Your task to perform on an android device: turn off data saver in the chrome app Image 0: 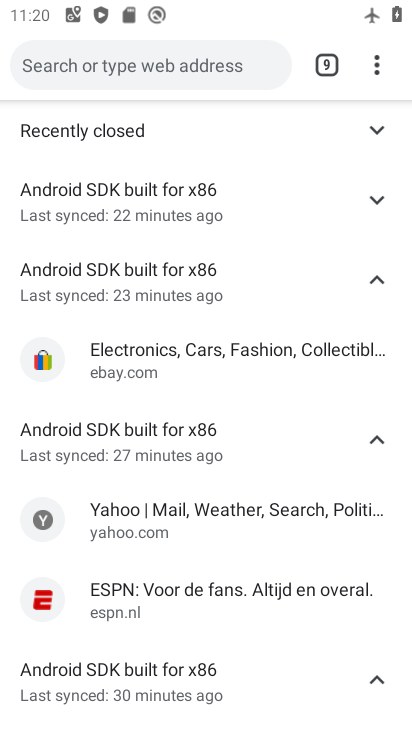
Step 0: click (369, 63)
Your task to perform on an android device: turn off data saver in the chrome app Image 1: 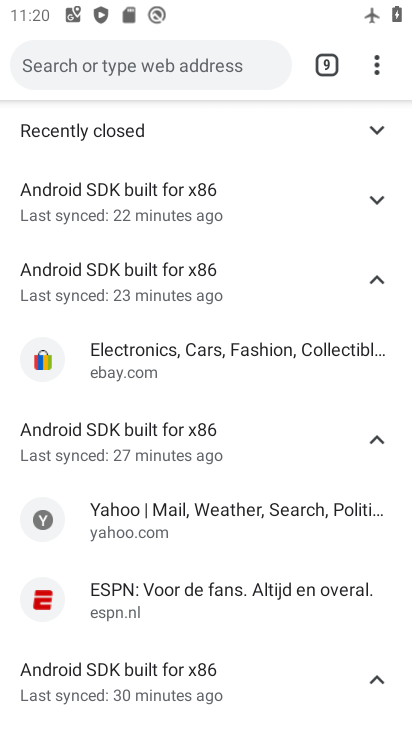
Step 1: press home button
Your task to perform on an android device: turn off data saver in the chrome app Image 2: 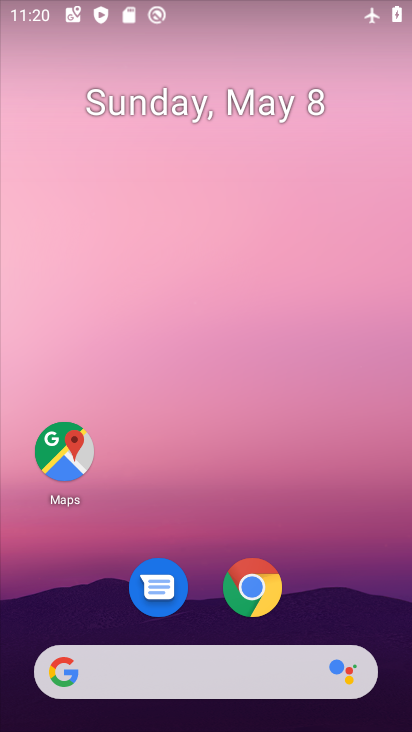
Step 2: click (248, 568)
Your task to perform on an android device: turn off data saver in the chrome app Image 3: 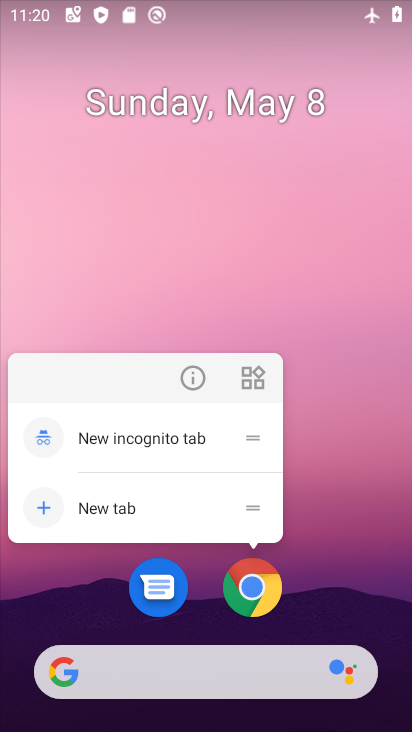
Step 3: click (246, 592)
Your task to perform on an android device: turn off data saver in the chrome app Image 4: 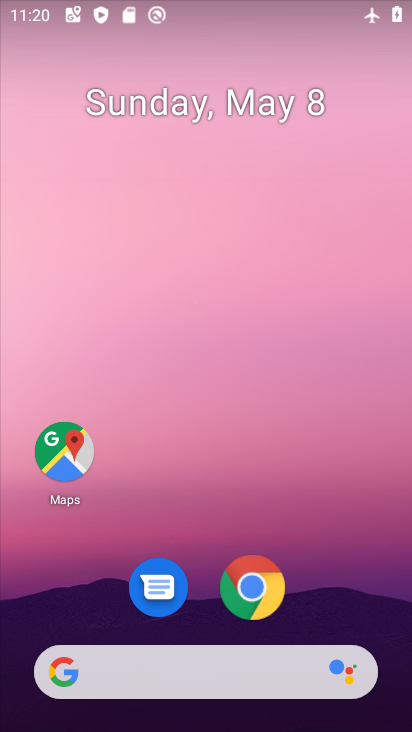
Step 4: click (247, 592)
Your task to perform on an android device: turn off data saver in the chrome app Image 5: 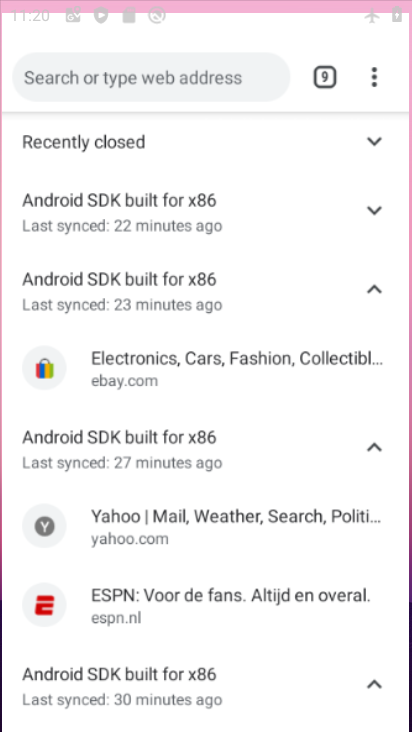
Step 5: click (247, 592)
Your task to perform on an android device: turn off data saver in the chrome app Image 6: 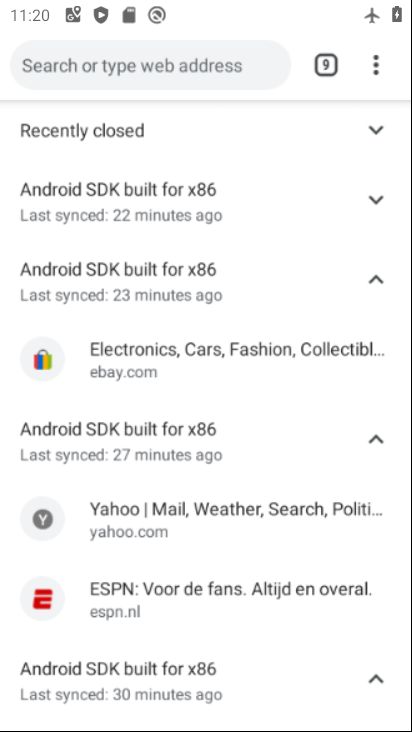
Step 6: click (248, 592)
Your task to perform on an android device: turn off data saver in the chrome app Image 7: 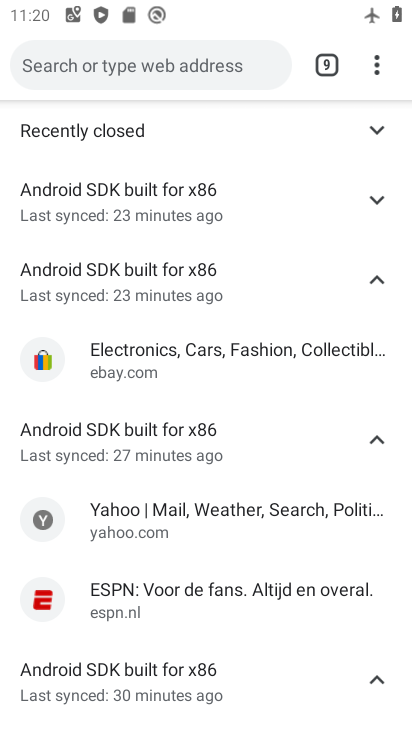
Step 7: click (362, 63)
Your task to perform on an android device: turn off data saver in the chrome app Image 8: 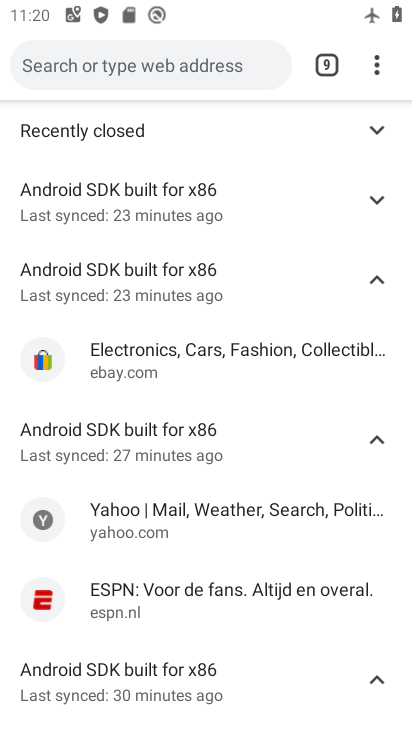
Step 8: click (367, 68)
Your task to perform on an android device: turn off data saver in the chrome app Image 9: 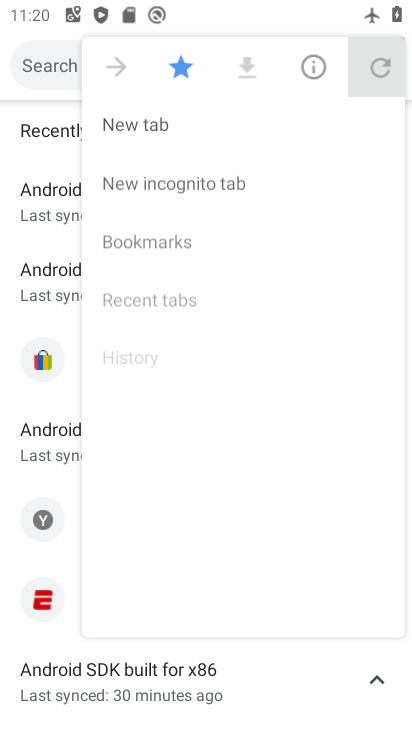
Step 9: click (377, 65)
Your task to perform on an android device: turn off data saver in the chrome app Image 10: 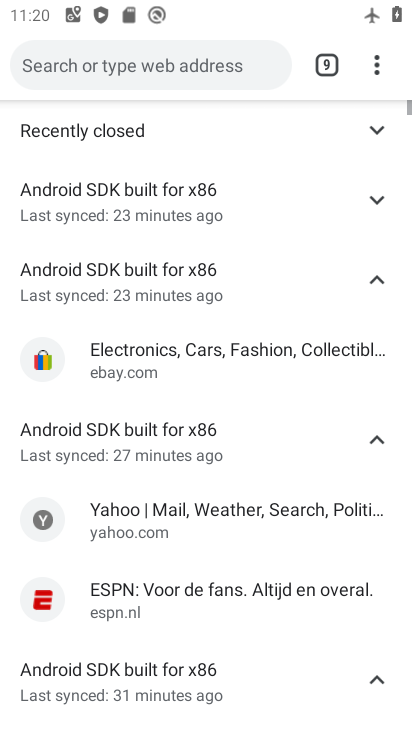
Step 10: drag from (377, 65) to (142, 545)
Your task to perform on an android device: turn off data saver in the chrome app Image 11: 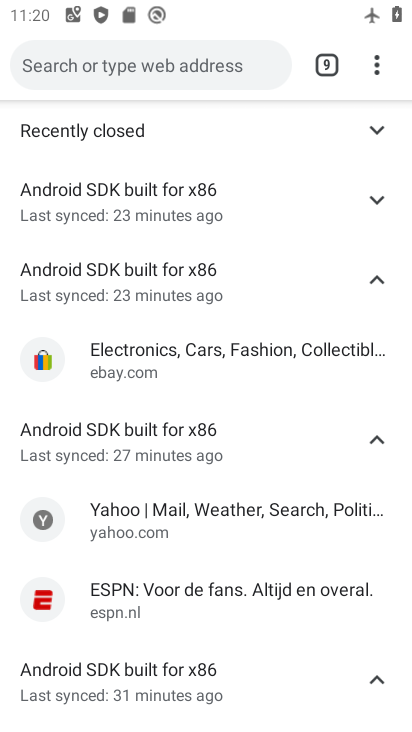
Step 11: click (142, 545)
Your task to perform on an android device: turn off data saver in the chrome app Image 12: 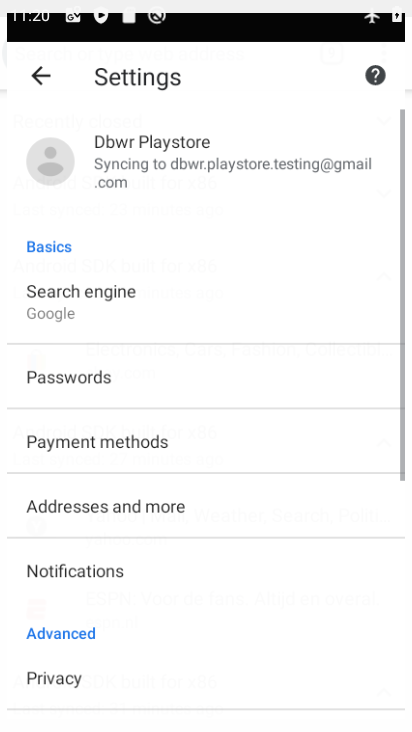
Step 12: click (142, 545)
Your task to perform on an android device: turn off data saver in the chrome app Image 13: 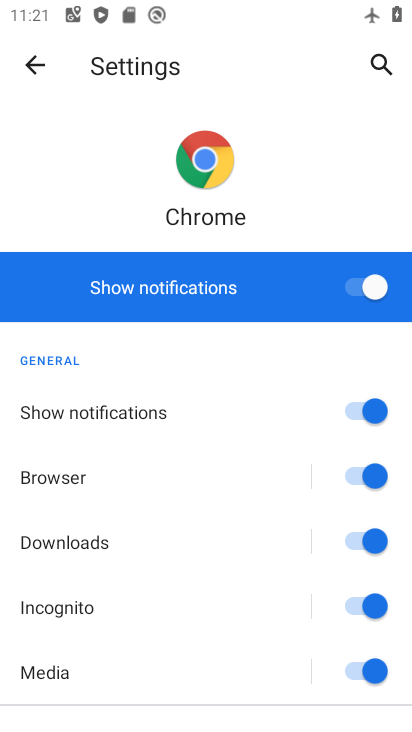
Step 13: click (38, 61)
Your task to perform on an android device: turn off data saver in the chrome app Image 14: 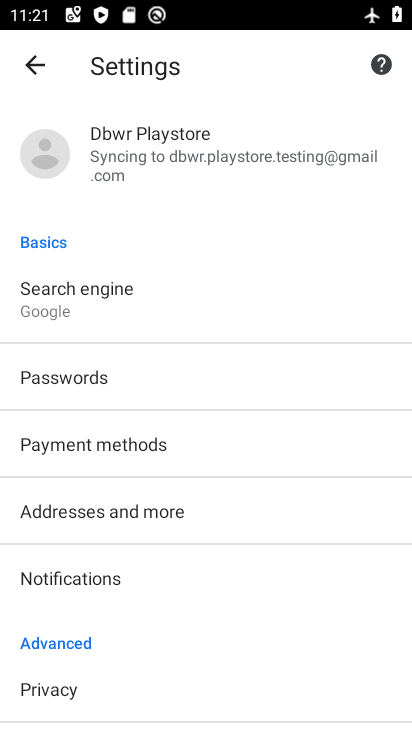
Step 14: drag from (133, 647) to (33, 89)
Your task to perform on an android device: turn off data saver in the chrome app Image 15: 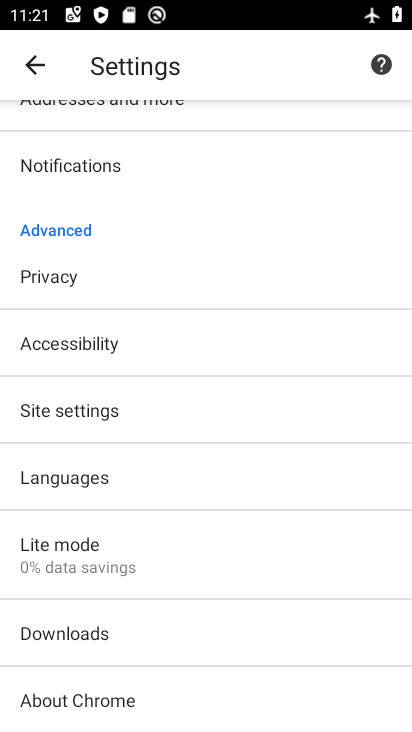
Step 15: click (48, 549)
Your task to perform on an android device: turn off data saver in the chrome app Image 16: 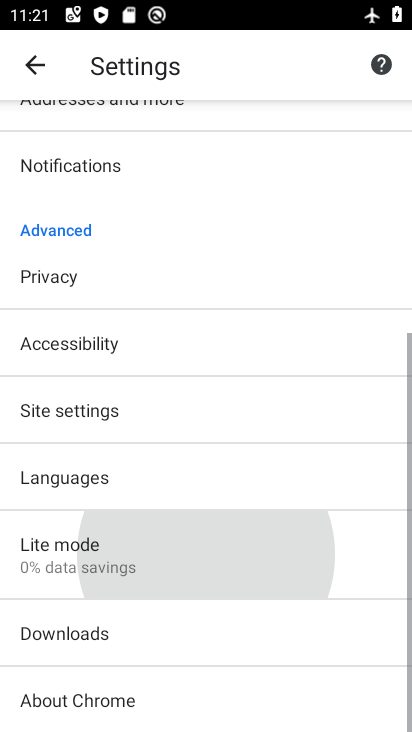
Step 16: click (48, 550)
Your task to perform on an android device: turn off data saver in the chrome app Image 17: 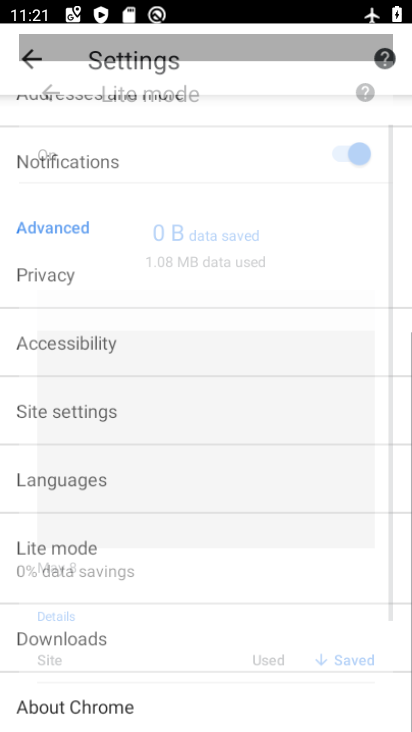
Step 17: click (44, 550)
Your task to perform on an android device: turn off data saver in the chrome app Image 18: 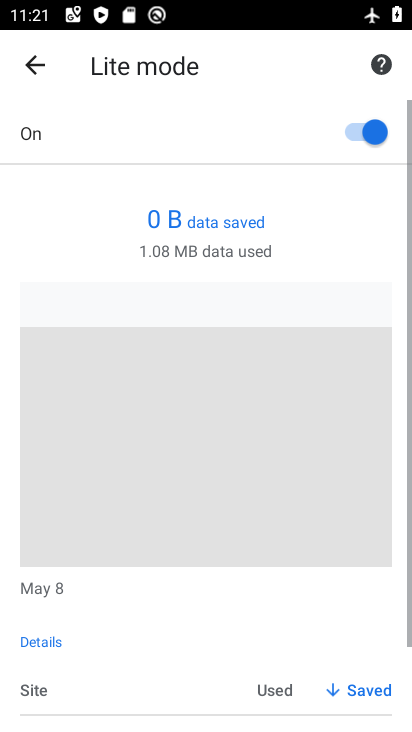
Step 18: click (38, 549)
Your task to perform on an android device: turn off data saver in the chrome app Image 19: 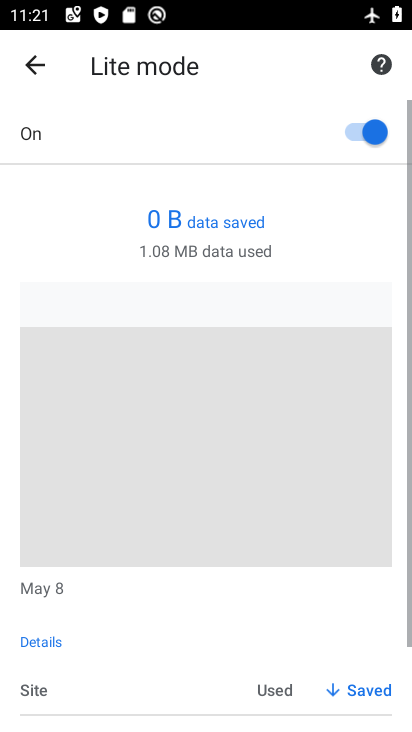
Step 19: click (366, 124)
Your task to perform on an android device: turn off data saver in the chrome app Image 20: 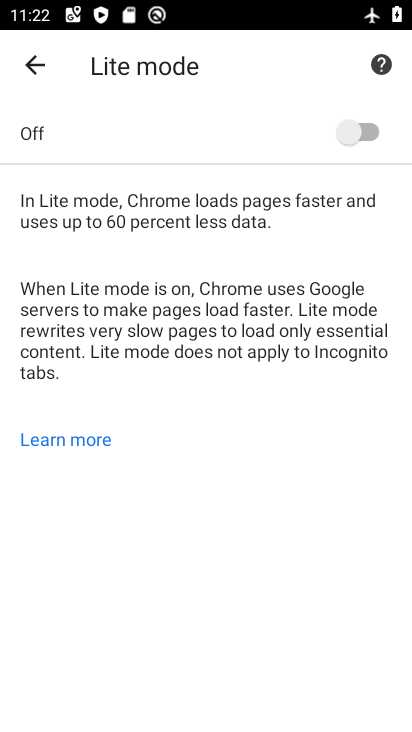
Step 20: task complete